Your task to perform on an android device: Open the web browser Image 0: 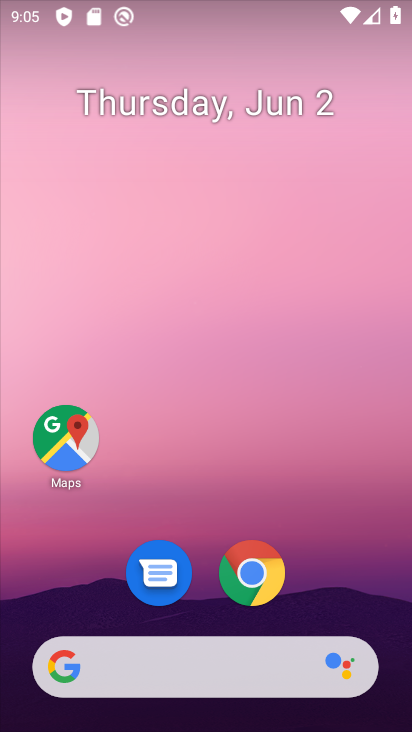
Step 0: click (251, 568)
Your task to perform on an android device: Open the web browser Image 1: 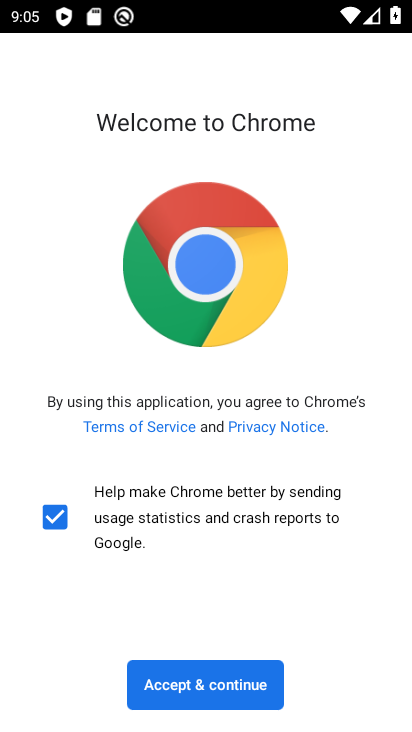
Step 1: click (232, 687)
Your task to perform on an android device: Open the web browser Image 2: 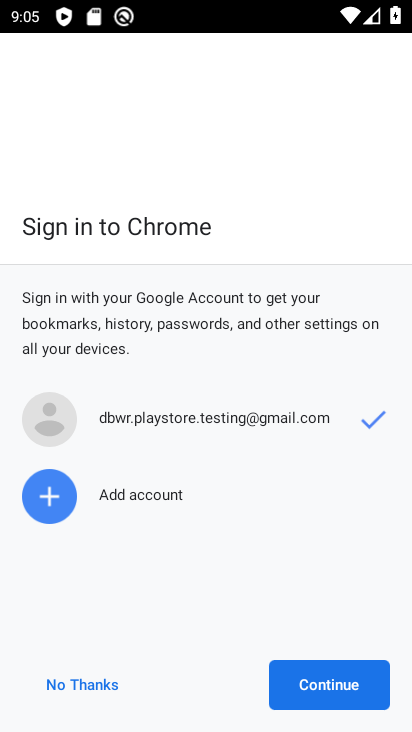
Step 2: click (310, 692)
Your task to perform on an android device: Open the web browser Image 3: 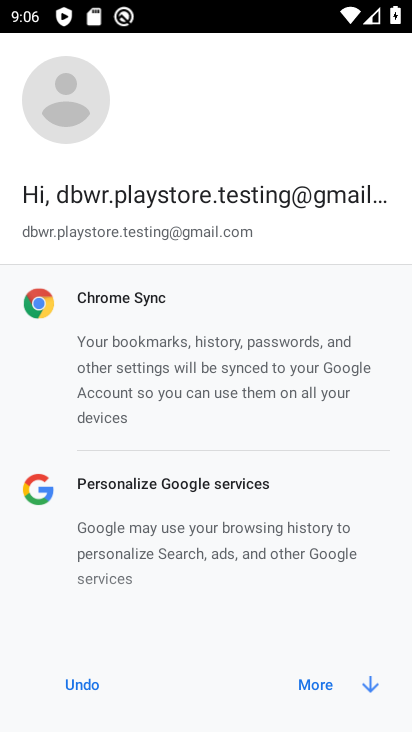
Step 3: click (310, 692)
Your task to perform on an android device: Open the web browser Image 4: 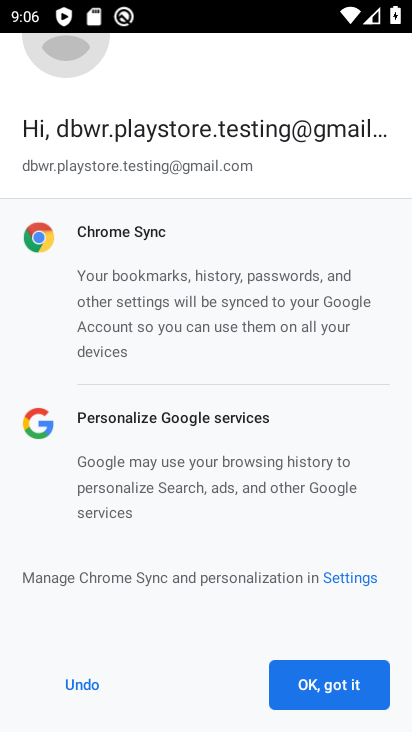
Step 4: click (310, 692)
Your task to perform on an android device: Open the web browser Image 5: 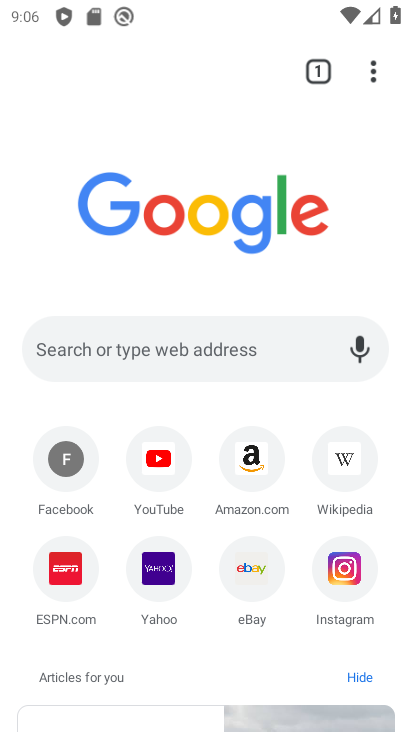
Step 5: task complete